Your task to perform on an android device: toggle translation in the chrome app Image 0: 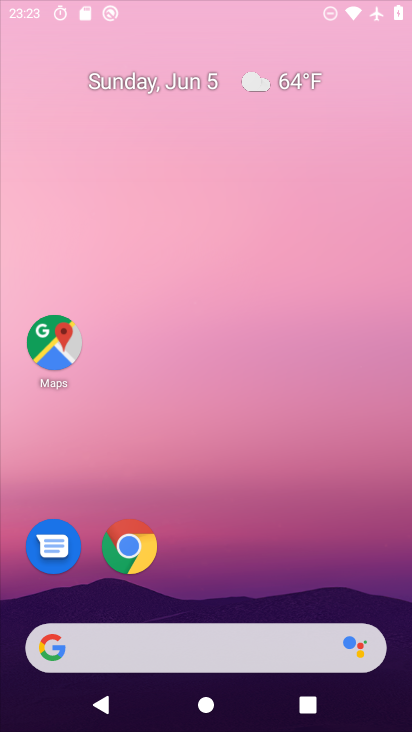
Step 0: click (363, 95)
Your task to perform on an android device: toggle translation in the chrome app Image 1: 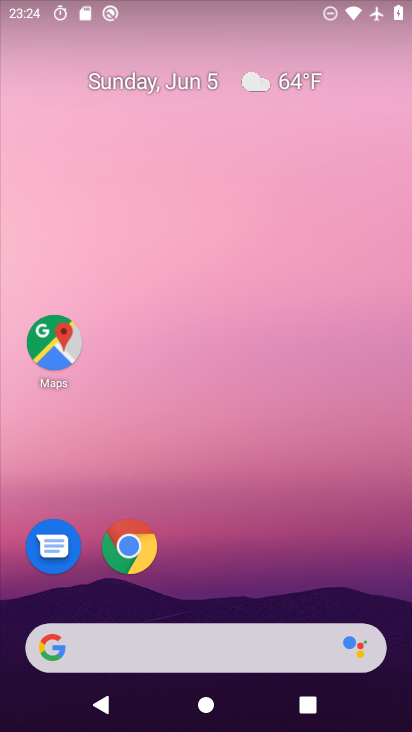
Step 1: drag from (212, 590) to (270, 151)
Your task to perform on an android device: toggle translation in the chrome app Image 2: 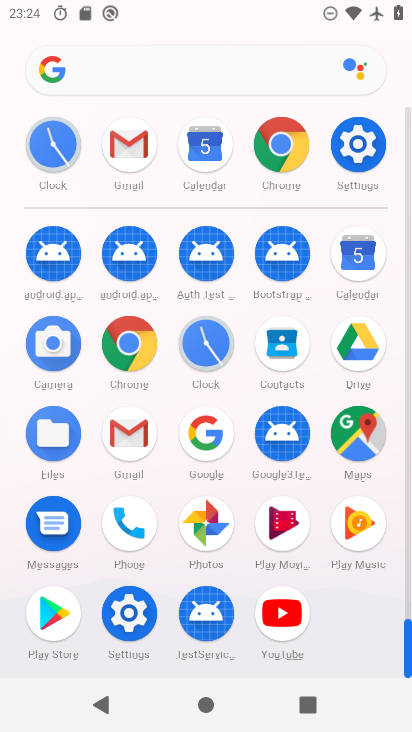
Step 2: click (125, 330)
Your task to perform on an android device: toggle translation in the chrome app Image 3: 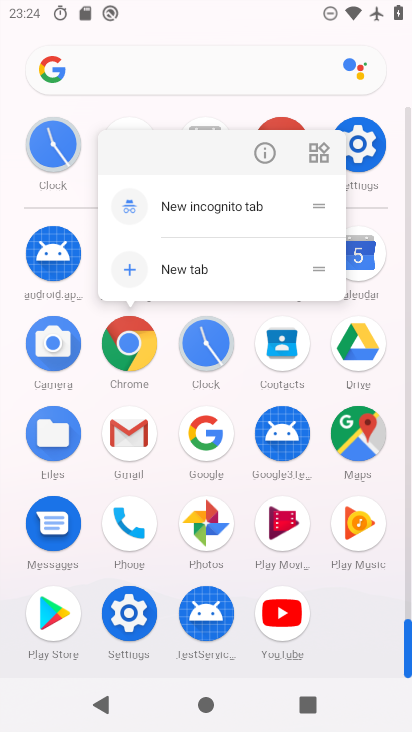
Step 3: click (268, 136)
Your task to perform on an android device: toggle translation in the chrome app Image 4: 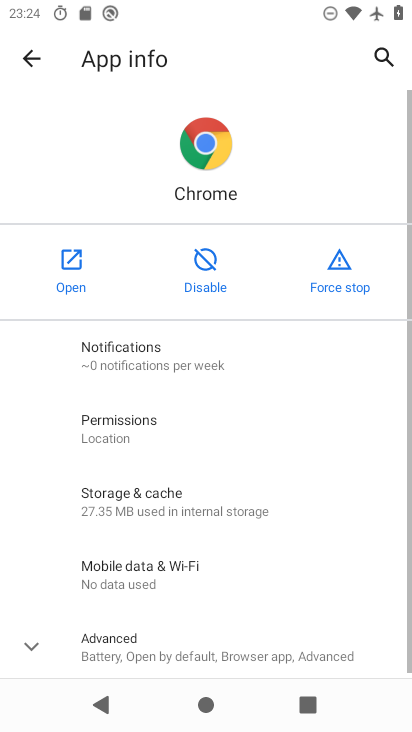
Step 4: click (62, 247)
Your task to perform on an android device: toggle translation in the chrome app Image 5: 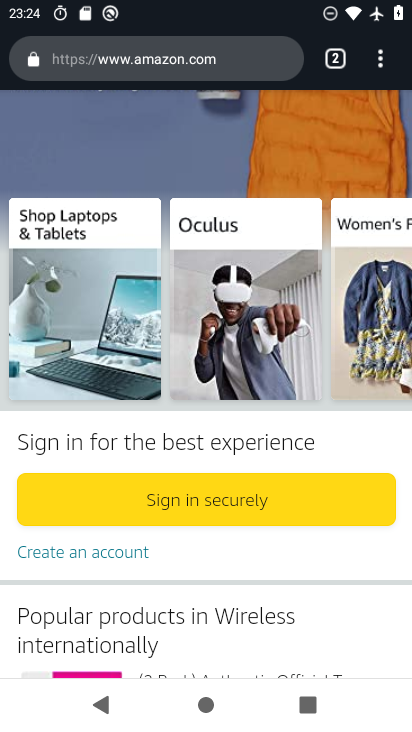
Step 5: click (386, 64)
Your task to perform on an android device: toggle translation in the chrome app Image 6: 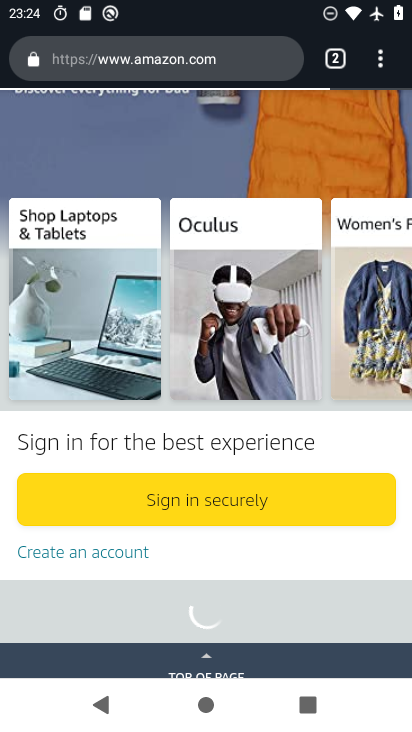
Step 6: drag from (385, 55) to (227, 574)
Your task to perform on an android device: toggle translation in the chrome app Image 7: 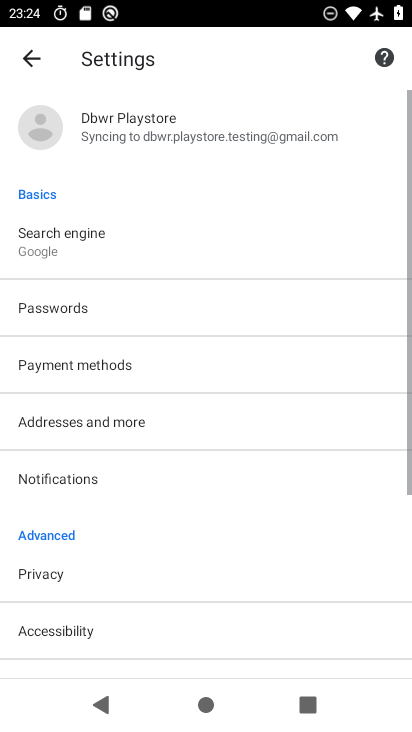
Step 7: drag from (123, 510) to (289, 12)
Your task to perform on an android device: toggle translation in the chrome app Image 8: 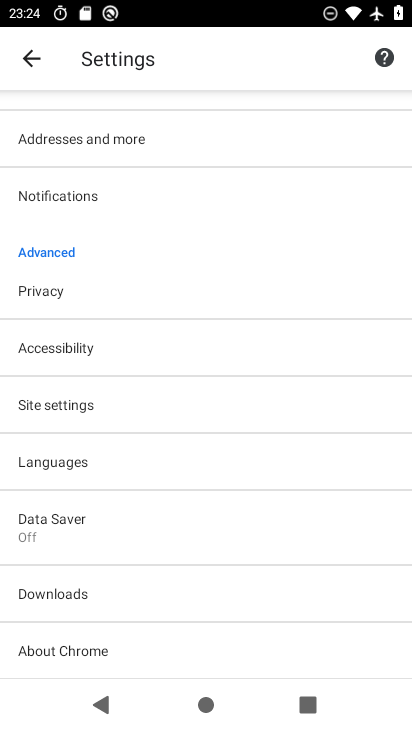
Step 8: drag from (143, 504) to (164, 309)
Your task to perform on an android device: toggle translation in the chrome app Image 9: 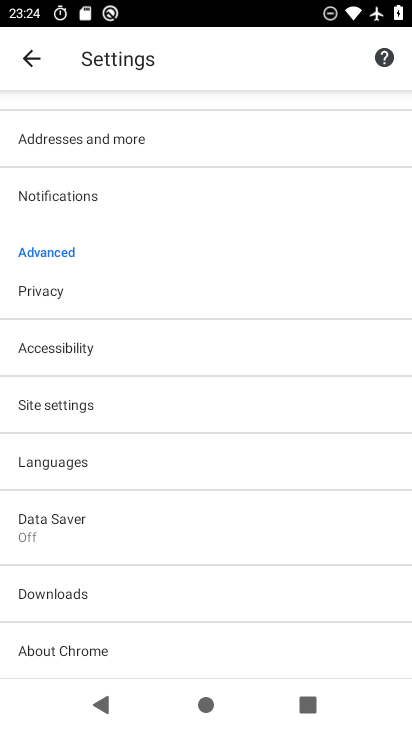
Step 9: click (94, 455)
Your task to perform on an android device: toggle translation in the chrome app Image 10: 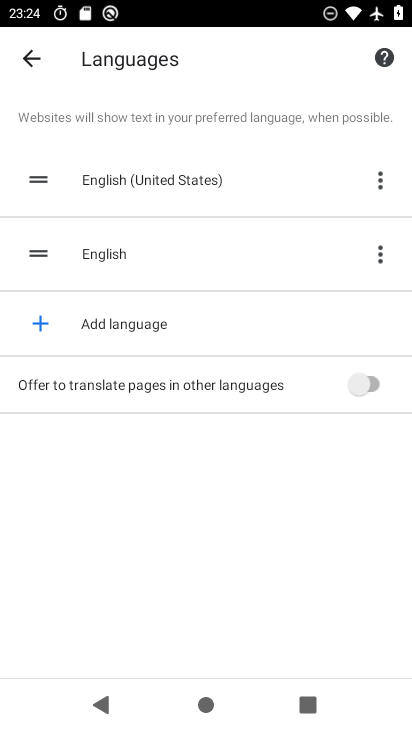
Step 10: click (314, 389)
Your task to perform on an android device: toggle translation in the chrome app Image 11: 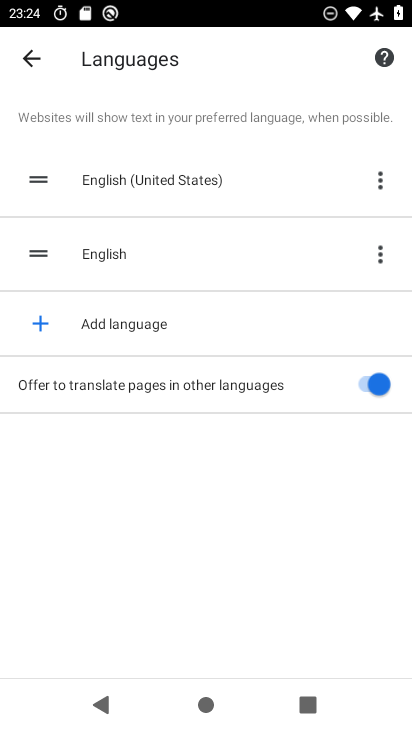
Step 11: task complete